Your task to perform on an android device: check data usage Image 0: 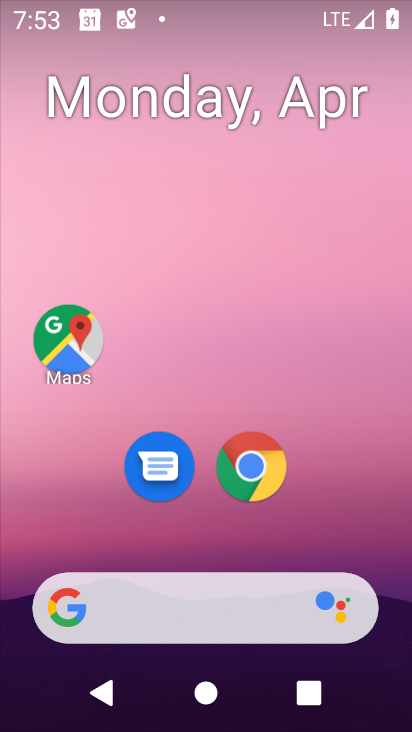
Step 0: click (207, 123)
Your task to perform on an android device: check data usage Image 1: 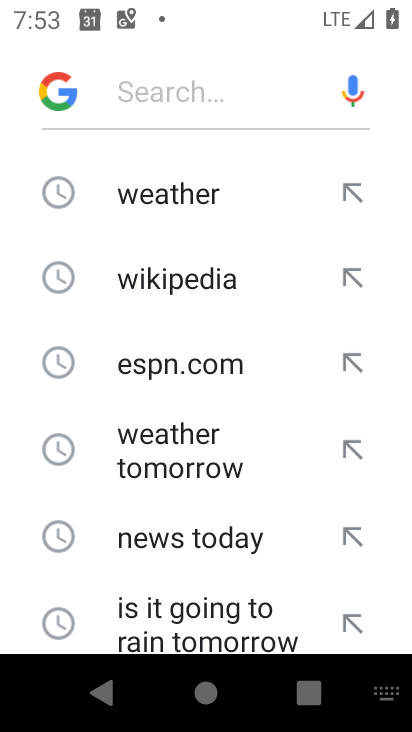
Step 1: press back button
Your task to perform on an android device: check data usage Image 2: 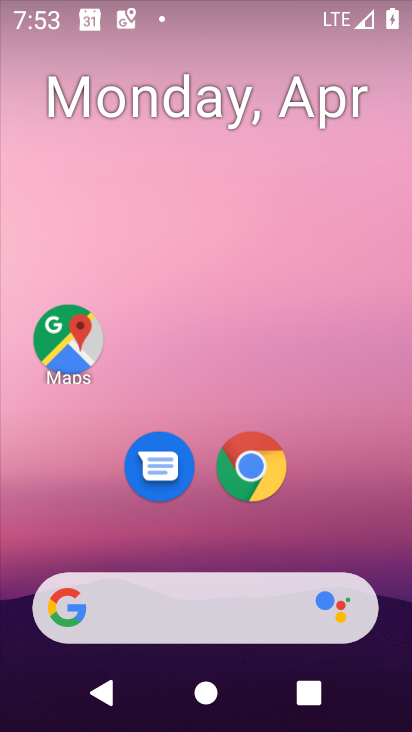
Step 2: press home button
Your task to perform on an android device: check data usage Image 3: 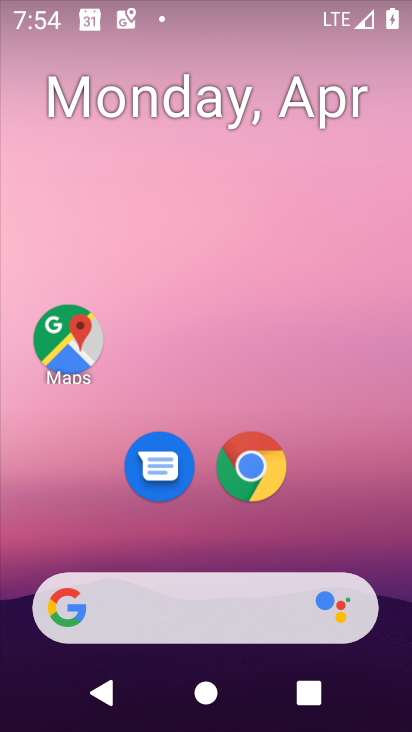
Step 3: drag from (205, 535) to (252, 215)
Your task to perform on an android device: check data usage Image 4: 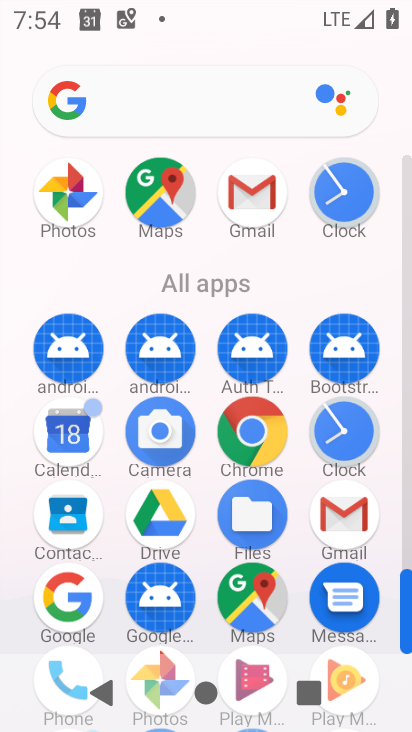
Step 4: drag from (219, 615) to (250, 370)
Your task to perform on an android device: check data usage Image 5: 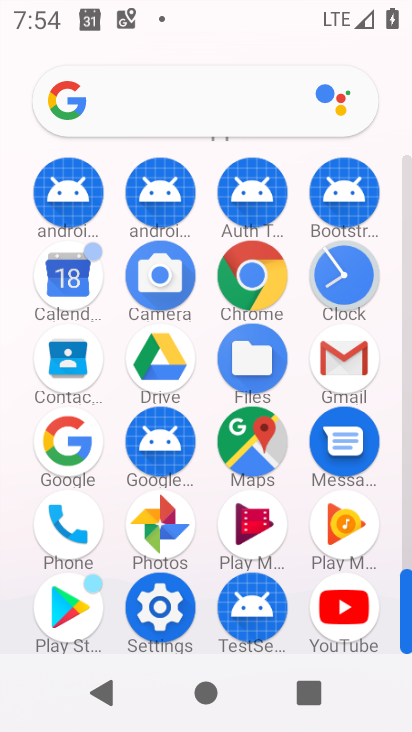
Step 5: click (166, 593)
Your task to perform on an android device: check data usage Image 6: 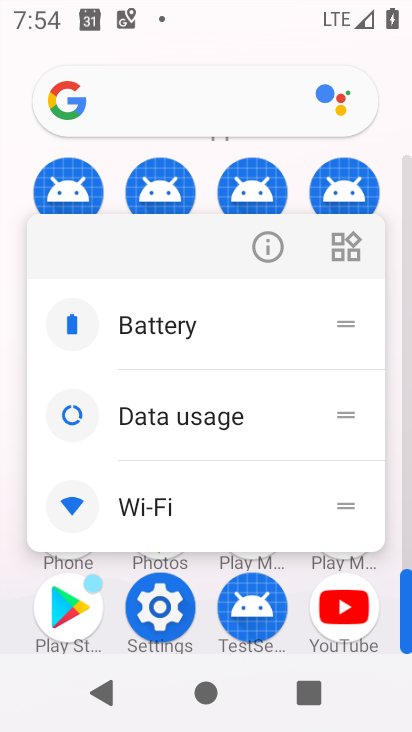
Step 6: click (180, 414)
Your task to perform on an android device: check data usage Image 7: 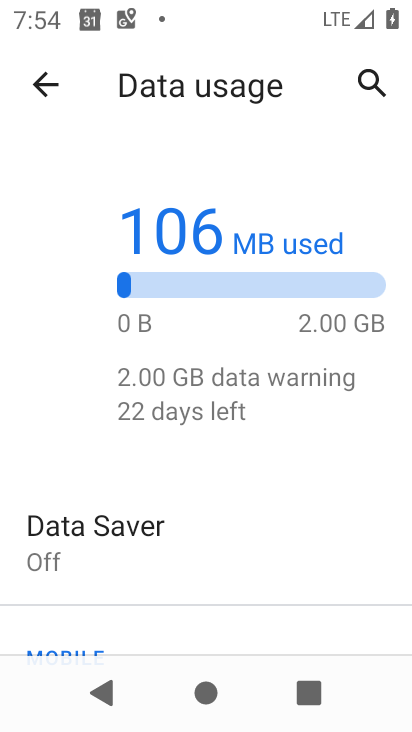
Step 7: task complete